Your task to perform on an android device: set the stopwatch Image 0: 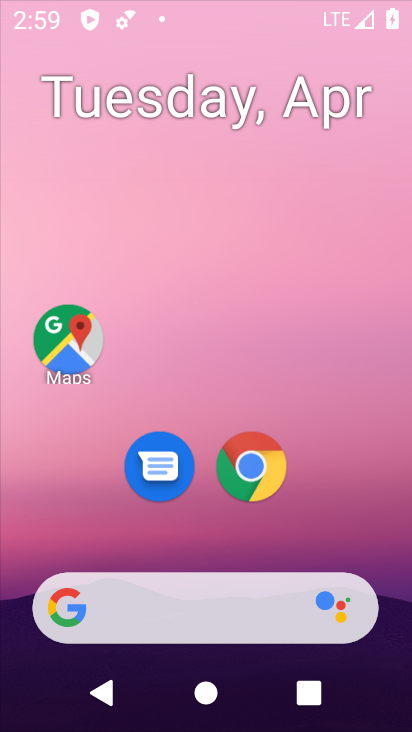
Step 0: press home button
Your task to perform on an android device: set the stopwatch Image 1: 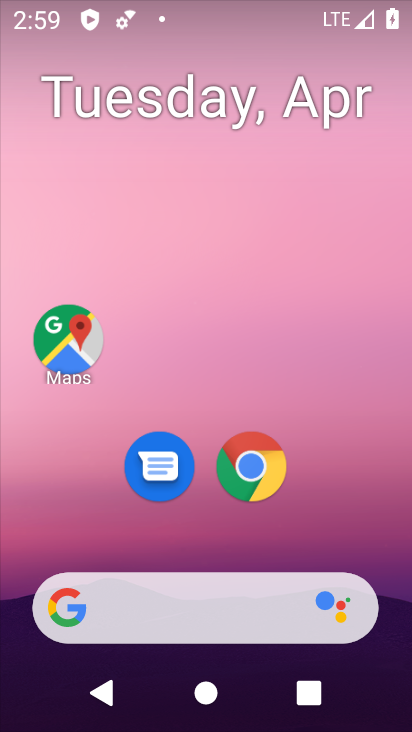
Step 1: drag from (190, 540) to (280, 43)
Your task to perform on an android device: set the stopwatch Image 2: 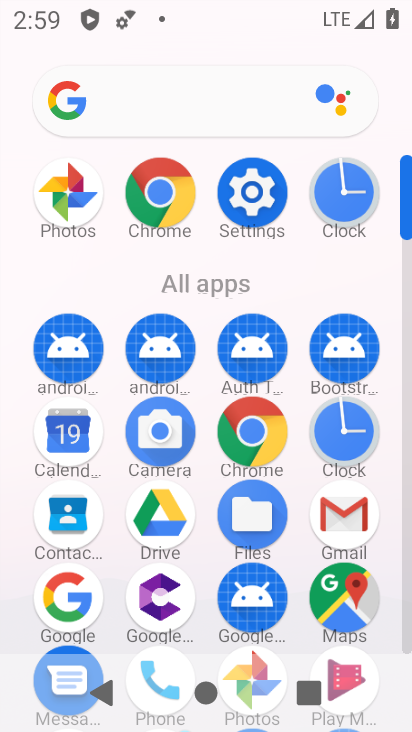
Step 2: click (341, 444)
Your task to perform on an android device: set the stopwatch Image 3: 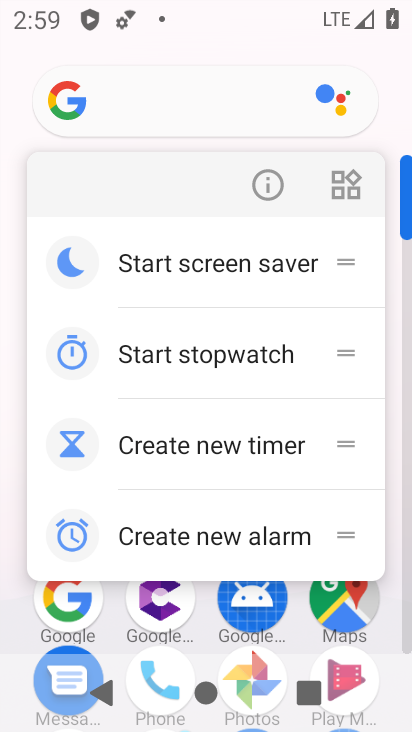
Step 3: click (410, 472)
Your task to perform on an android device: set the stopwatch Image 4: 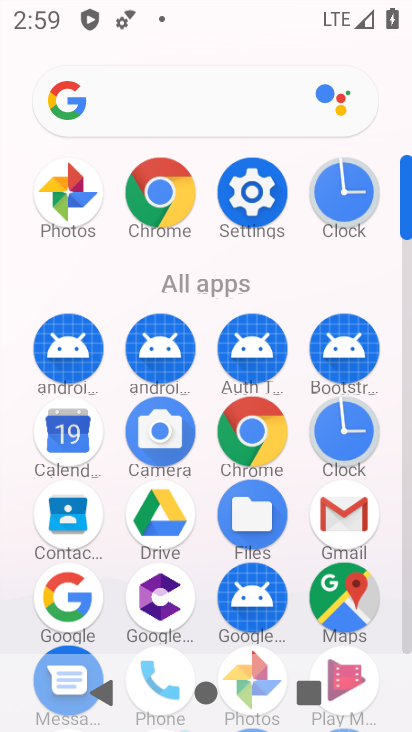
Step 4: click (348, 421)
Your task to perform on an android device: set the stopwatch Image 5: 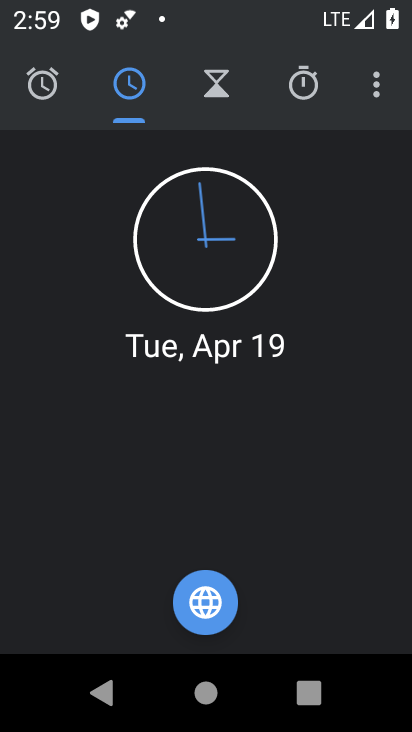
Step 5: click (273, 96)
Your task to perform on an android device: set the stopwatch Image 6: 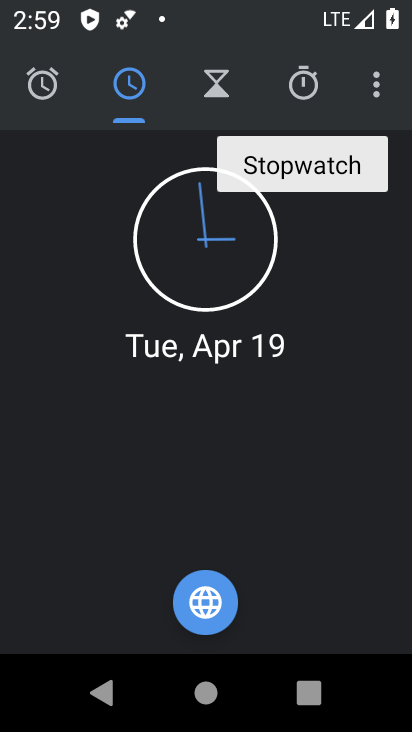
Step 6: click (300, 164)
Your task to perform on an android device: set the stopwatch Image 7: 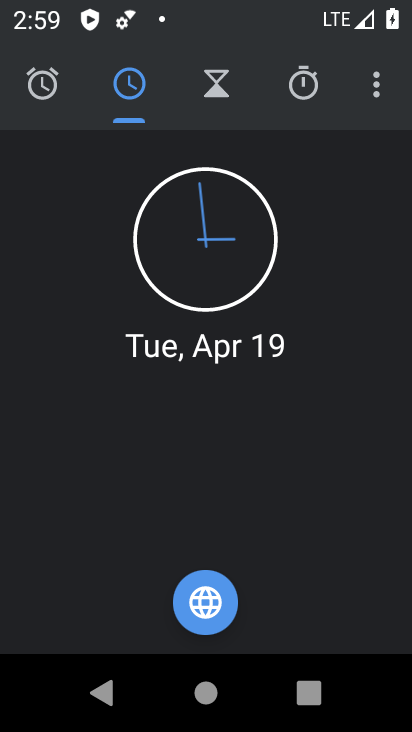
Step 7: click (309, 89)
Your task to perform on an android device: set the stopwatch Image 8: 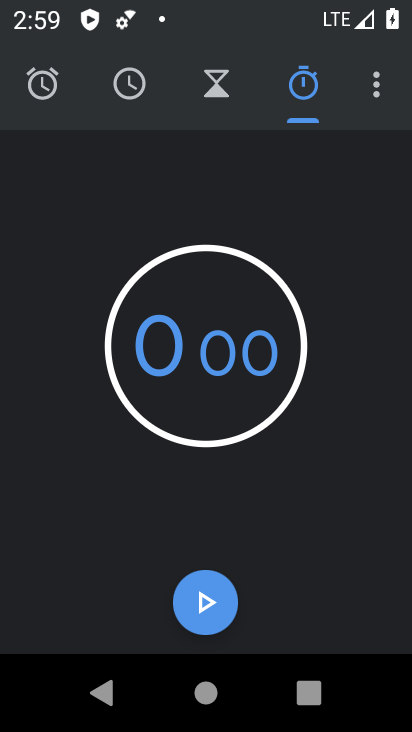
Step 8: click (224, 614)
Your task to perform on an android device: set the stopwatch Image 9: 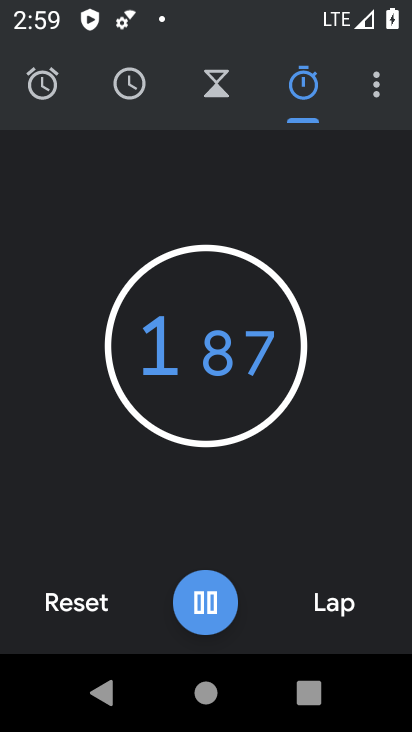
Step 9: click (206, 637)
Your task to perform on an android device: set the stopwatch Image 10: 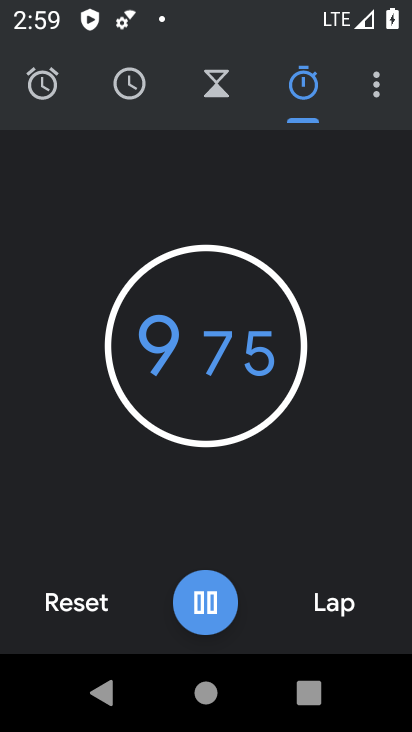
Step 10: task complete